Your task to perform on an android device: change the clock style Image 0: 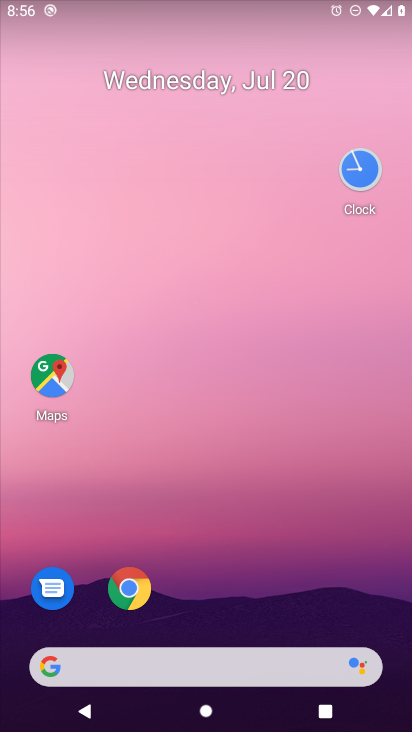
Step 0: drag from (23, 713) to (173, 453)
Your task to perform on an android device: change the clock style Image 1: 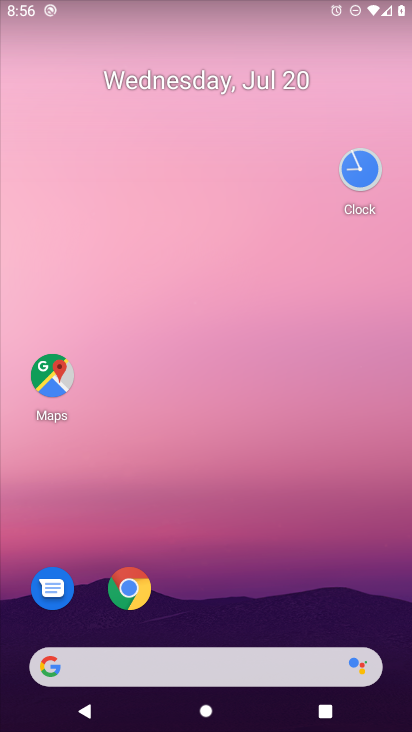
Step 1: click (353, 175)
Your task to perform on an android device: change the clock style Image 2: 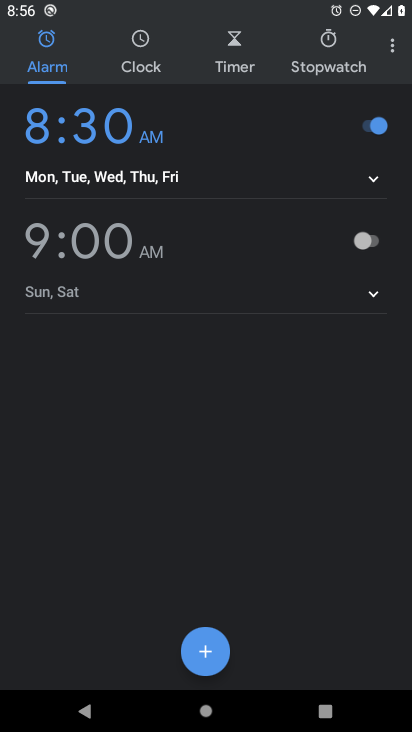
Step 2: click (385, 43)
Your task to perform on an android device: change the clock style Image 3: 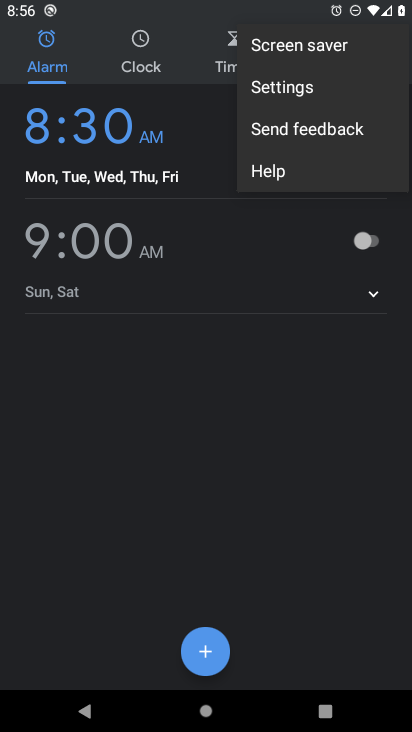
Step 3: click (303, 93)
Your task to perform on an android device: change the clock style Image 4: 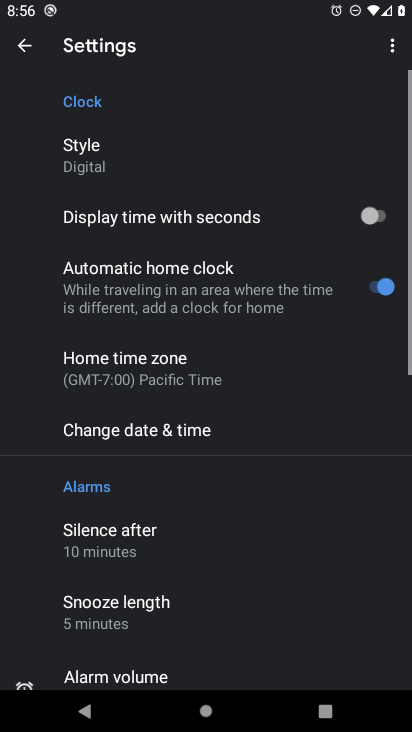
Step 4: click (63, 153)
Your task to perform on an android device: change the clock style Image 5: 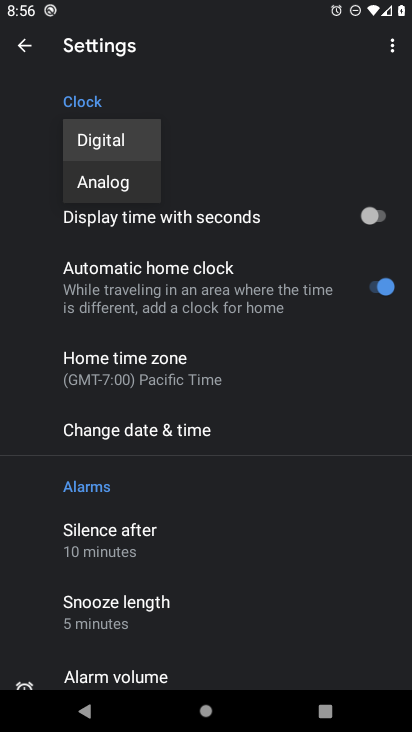
Step 5: click (108, 187)
Your task to perform on an android device: change the clock style Image 6: 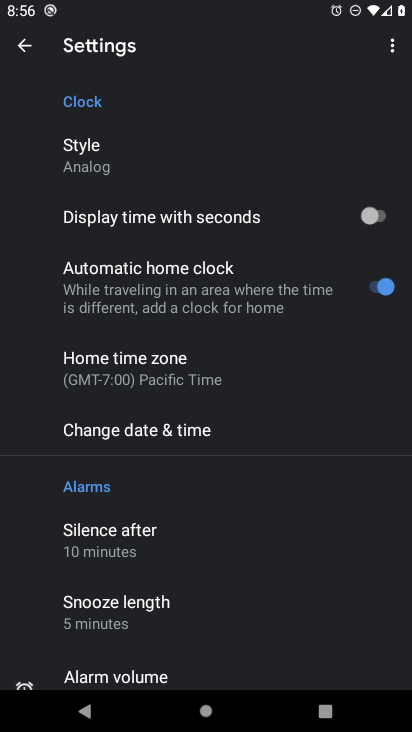
Step 6: task complete